Your task to perform on an android device: Open Yahoo.com Image 0: 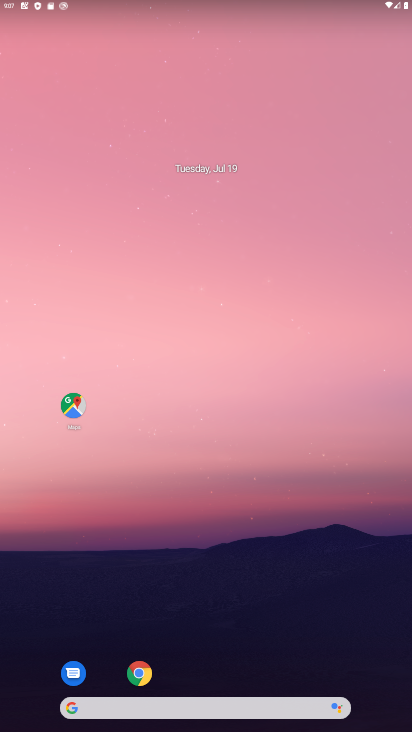
Step 0: click (150, 672)
Your task to perform on an android device: Open Yahoo.com Image 1: 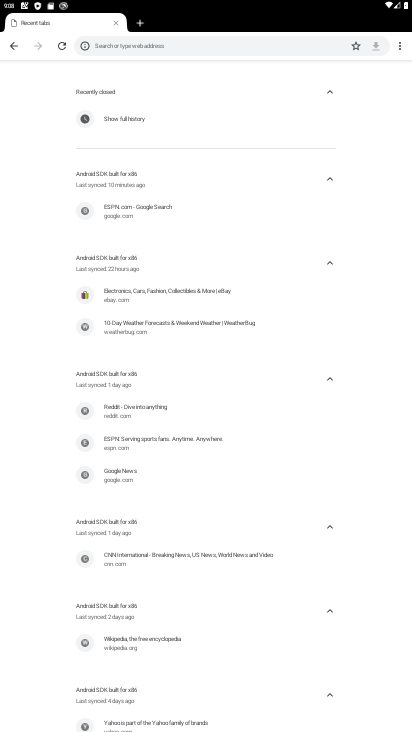
Step 1: click (145, 24)
Your task to perform on an android device: Open Yahoo.com Image 2: 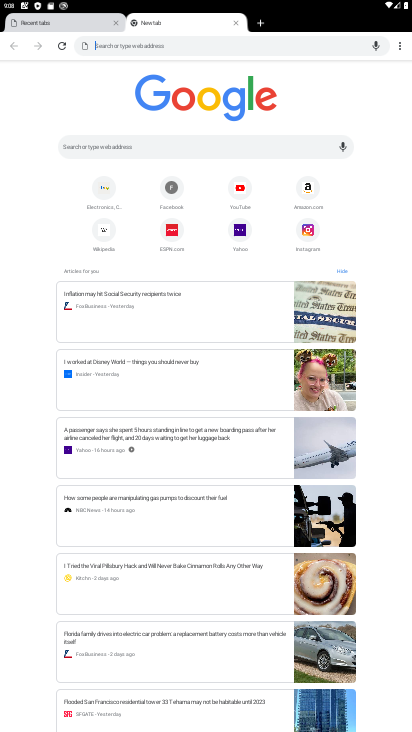
Step 2: click (235, 231)
Your task to perform on an android device: Open Yahoo.com Image 3: 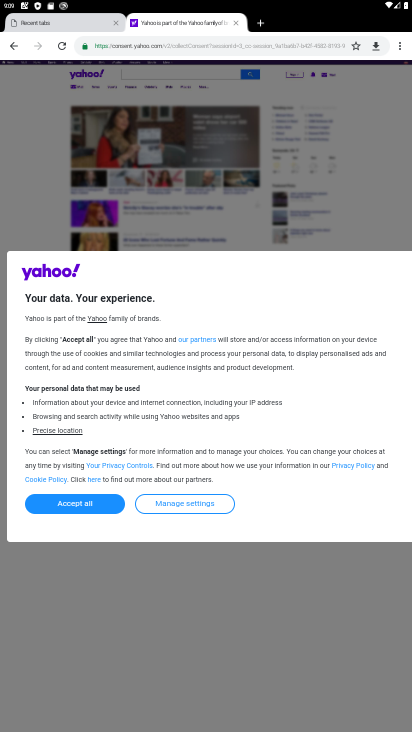
Step 3: task complete